Your task to perform on an android device: open chrome privacy settings Image 0: 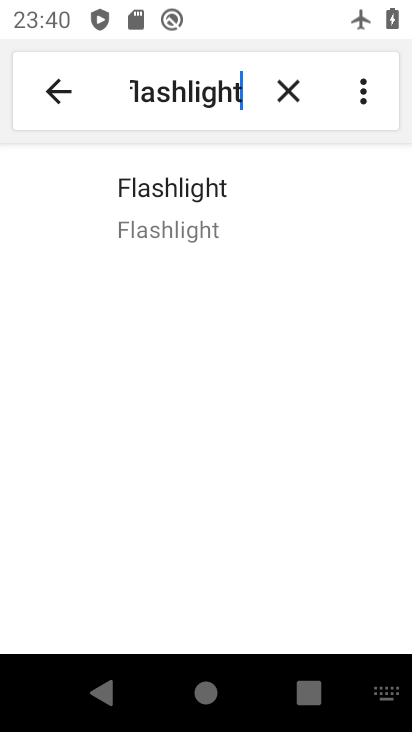
Step 0: press home button
Your task to perform on an android device: open chrome privacy settings Image 1: 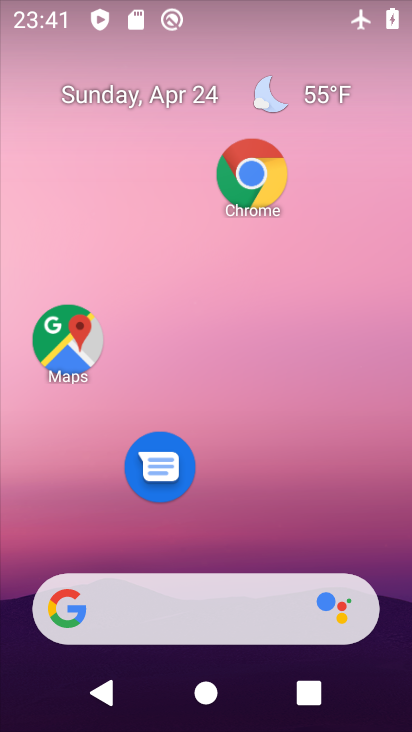
Step 1: click (246, 169)
Your task to perform on an android device: open chrome privacy settings Image 2: 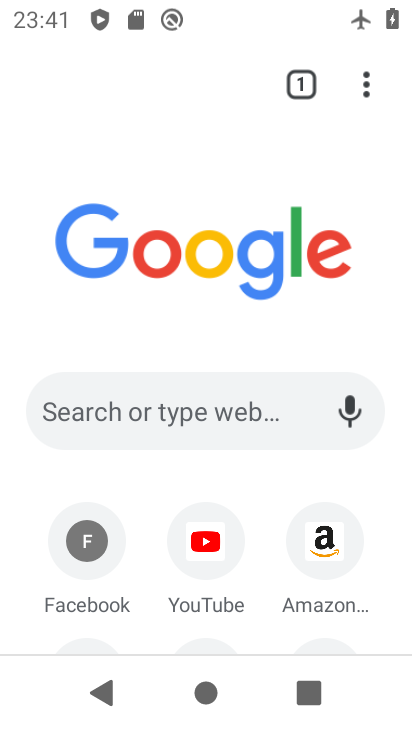
Step 2: click (360, 78)
Your task to perform on an android device: open chrome privacy settings Image 3: 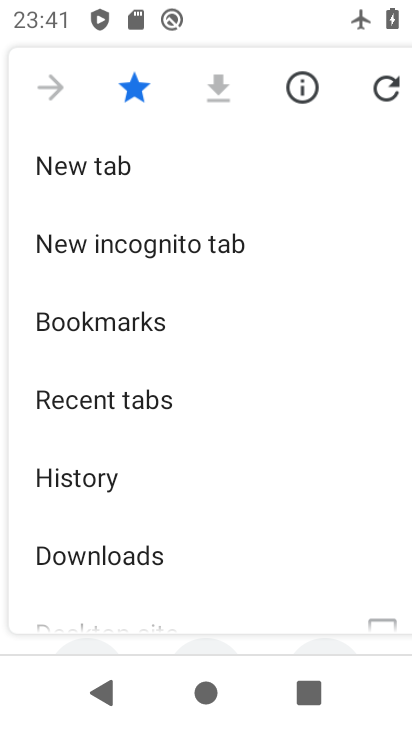
Step 3: drag from (277, 571) to (285, 165)
Your task to perform on an android device: open chrome privacy settings Image 4: 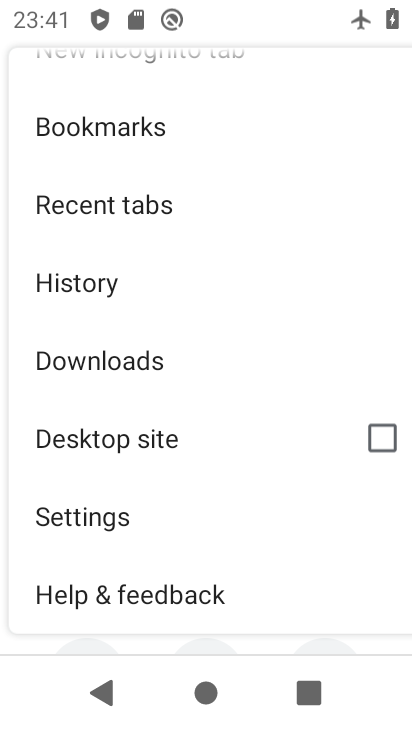
Step 4: click (127, 521)
Your task to perform on an android device: open chrome privacy settings Image 5: 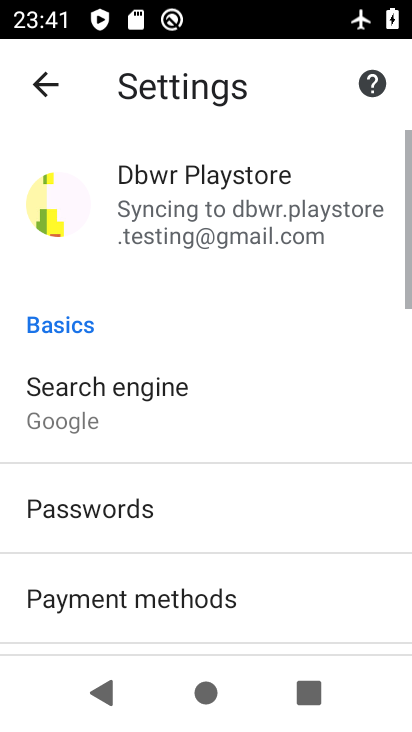
Step 5: drag from (231, 514) to (251, 183)
Your task to perform on an android device: open chrome privacy settings Image 6: 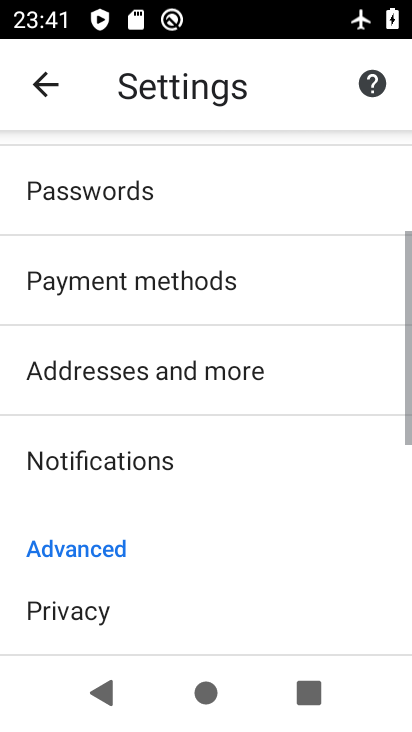
Step 6: drag from (179, 583) to (186, 379)
Your task to perform on an android device: open chrome privacy settings Image 7: 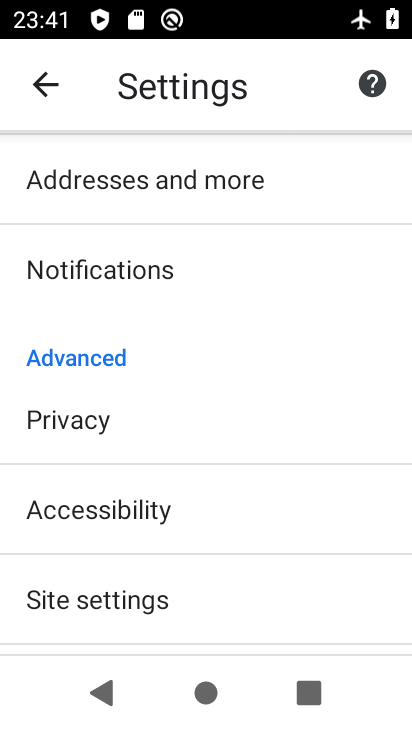
Step 7: click (93, 425)
Your task to perform on an android device: open chrome privacy settings Image 8: 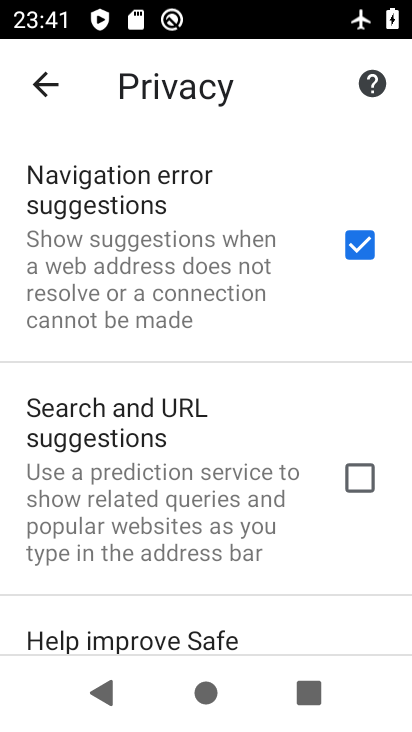
Step 8: task complete